Your task to perform on an android device: turn vacation reply on in the gmail app Image 0: 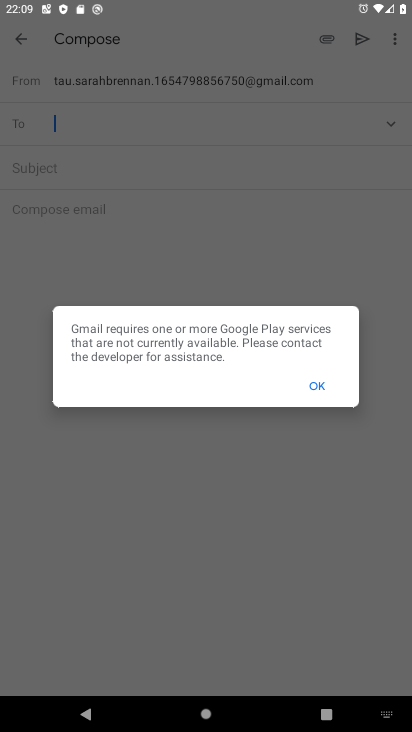
Step 0: press home button
Your task to perform on an android device: turn vacation reply on in the gmail app Image 1: 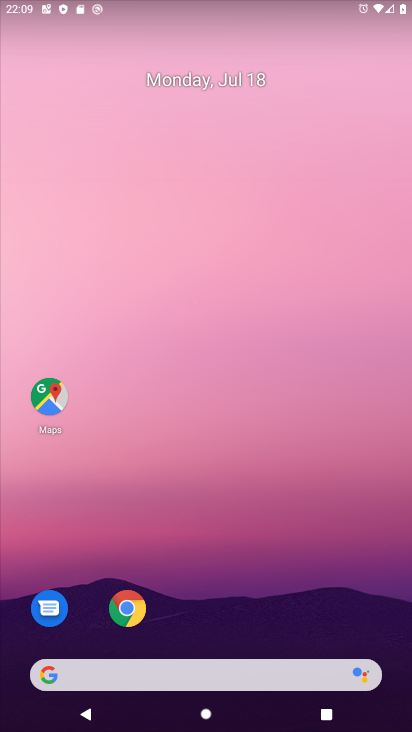
Step 1: drag from (129, 417) to (171, 207)
Your task to perform on an android device: turn vacation reply on in the gmail app Image 2: 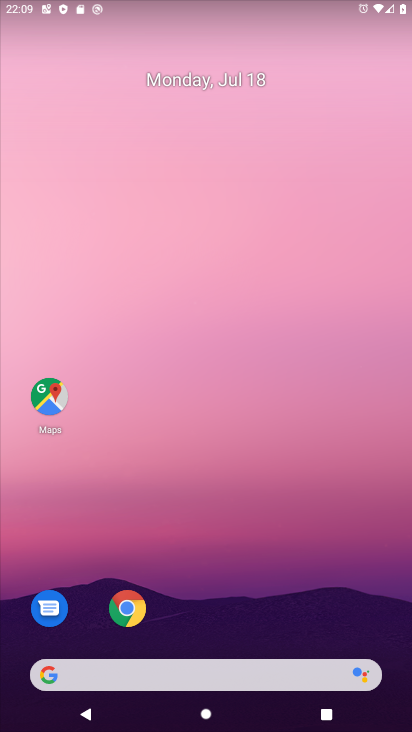
Step 2: drag from (84, 587) to (195, 61)
Your task to perform on an android device: turn vacation reply on in the gmail app Image 3: 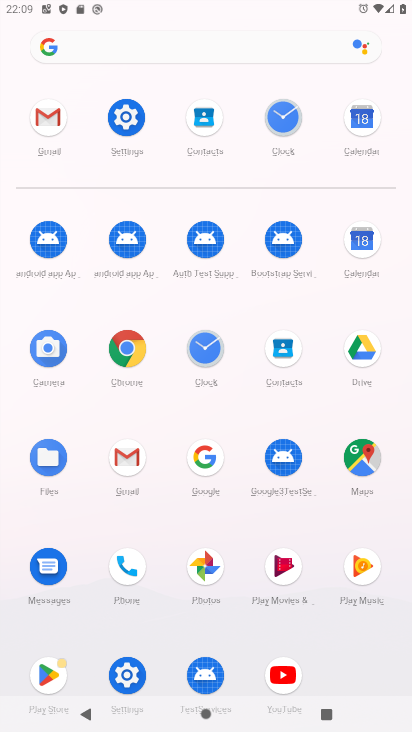
Step 3: click (124, 464)
Your task to perform on an android device: turn vacation reply on in the gmail app Image 4: 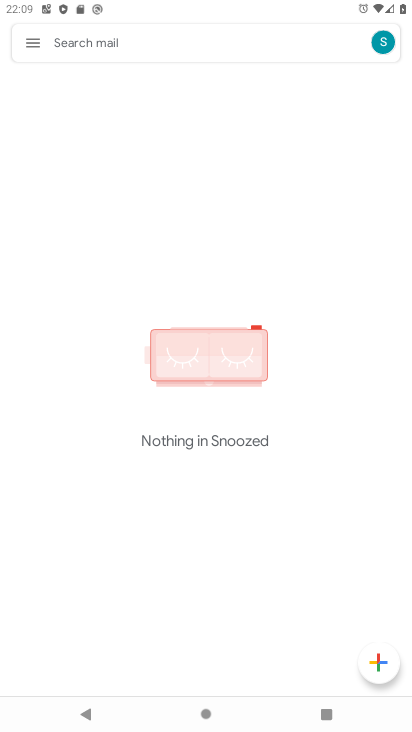
Step 4: click (44, 40)
Your task to perform on an android device: turn vacation reply on in the gmail app Image 5: 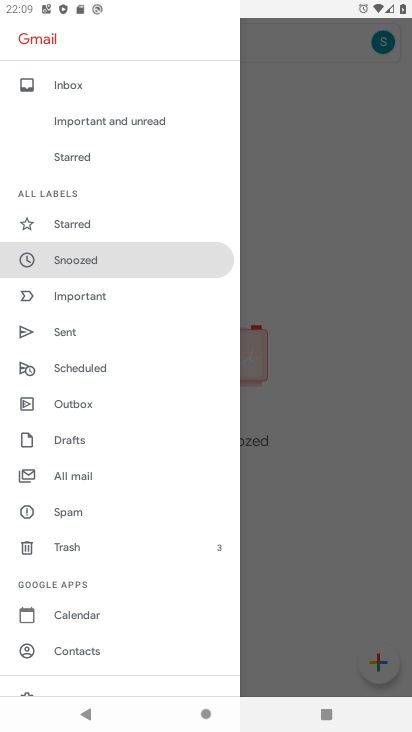
Step 5: drag from (119, 643) to (174, 394)
Your task to perform on an android device: turn vacation reply on in the gmail app Image 6: 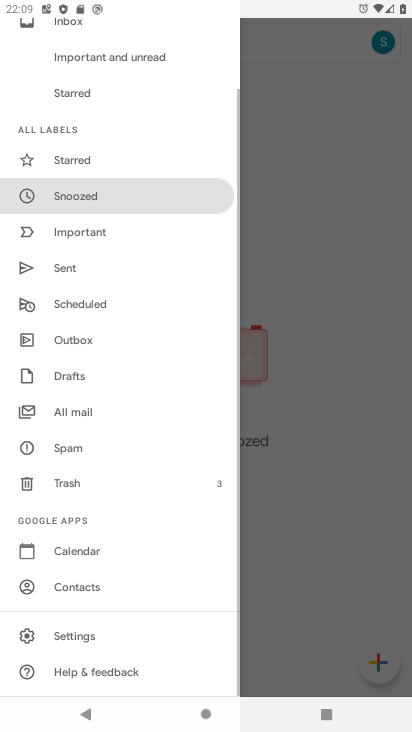
Step 6: click (58, 645)
Your task to perform on an android device: turn vacation reply on in the gmail app Image 7: 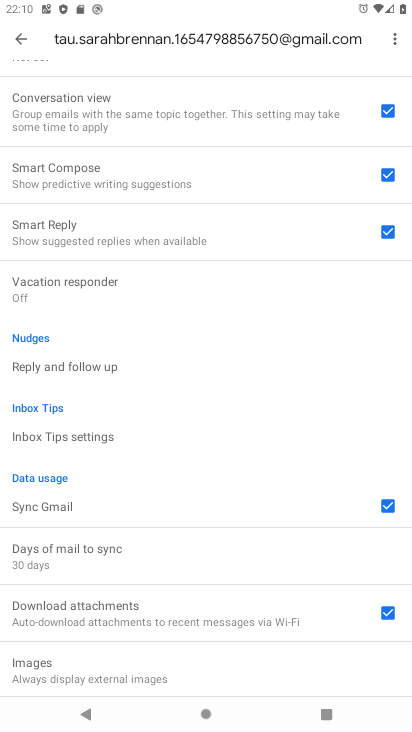
Step 7: drag from (152, 192) to (187, 379)
Your task to perform on an android device: turn vacation reply on in the gmail app Image 8: 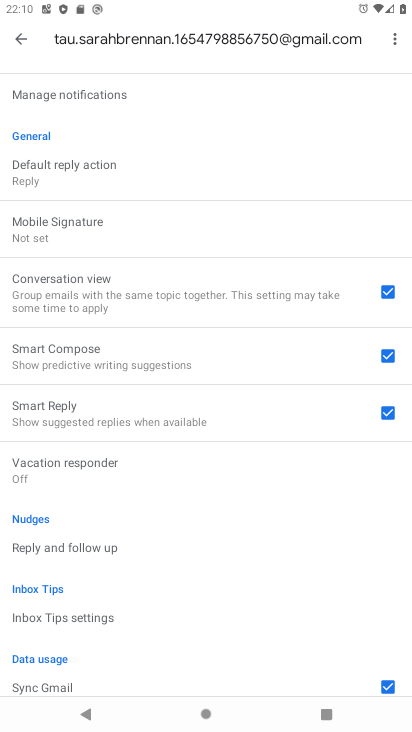
Step 8: click (67, 177)
Your task to perform on an android device: turn vacation reply on in the gmail app Image 9: 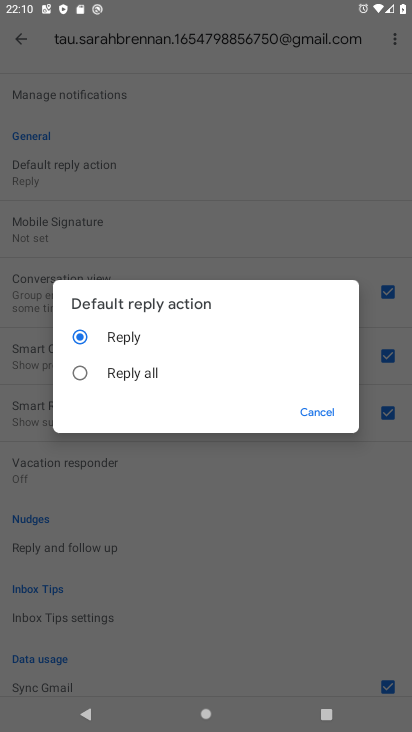
Step 9: click (176, 482)
Your task to perform on an android device: turn vacation reply on in the gmail app Image 10: 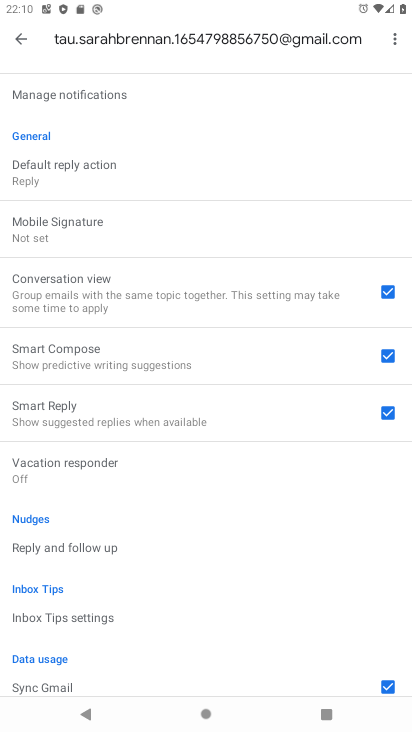
Step 10: click (333, 411)
Your task to perform on an android device: turn vacation reply on in the gmail app Image 11: 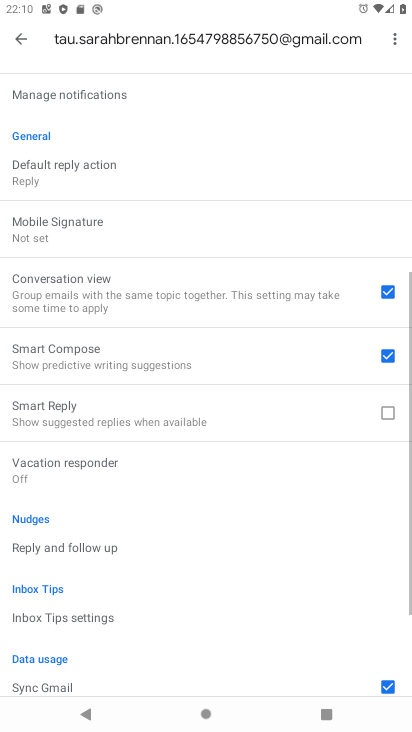
Step 11: click (240, 406)
Your task to perform on an android device: turn vacation reply on in the gmail app Image 12: 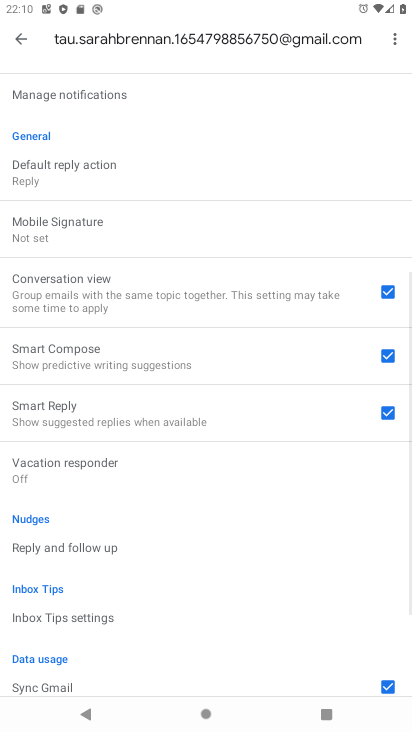
Step 12: task complete